Your task to perform on an android device: Do I have any events tomorrow? Image 0: 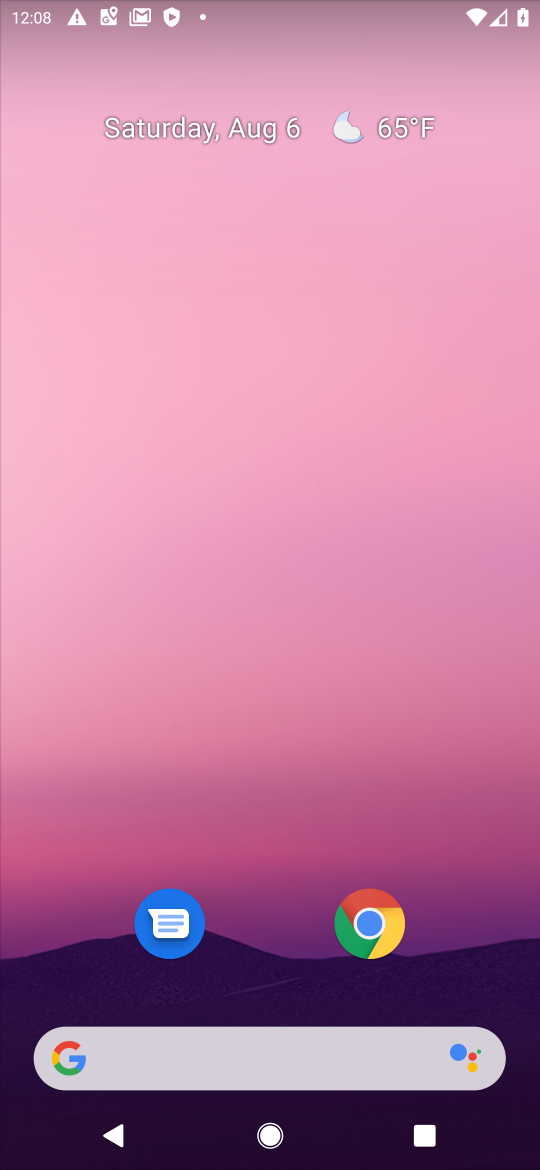
Step 0: drag from (390, 1051) to (387, 59)
Your task to perform on an android device: Do I have any events tomorrow? Image 1: 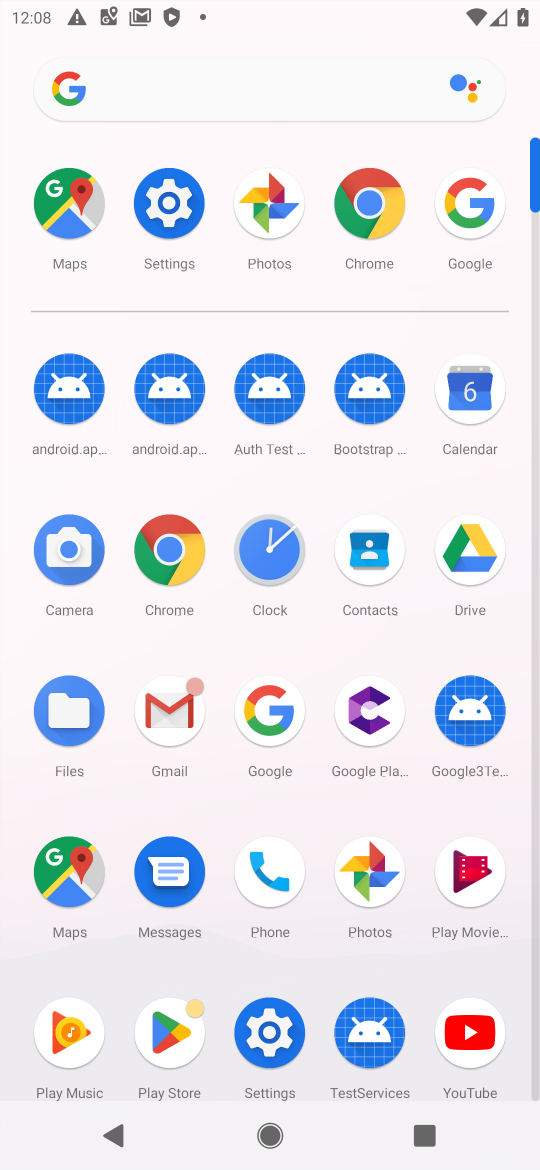
Step 1: click (468, 378)
Your task to perform on an android device: Do I have any events tomorrow? Image 2: 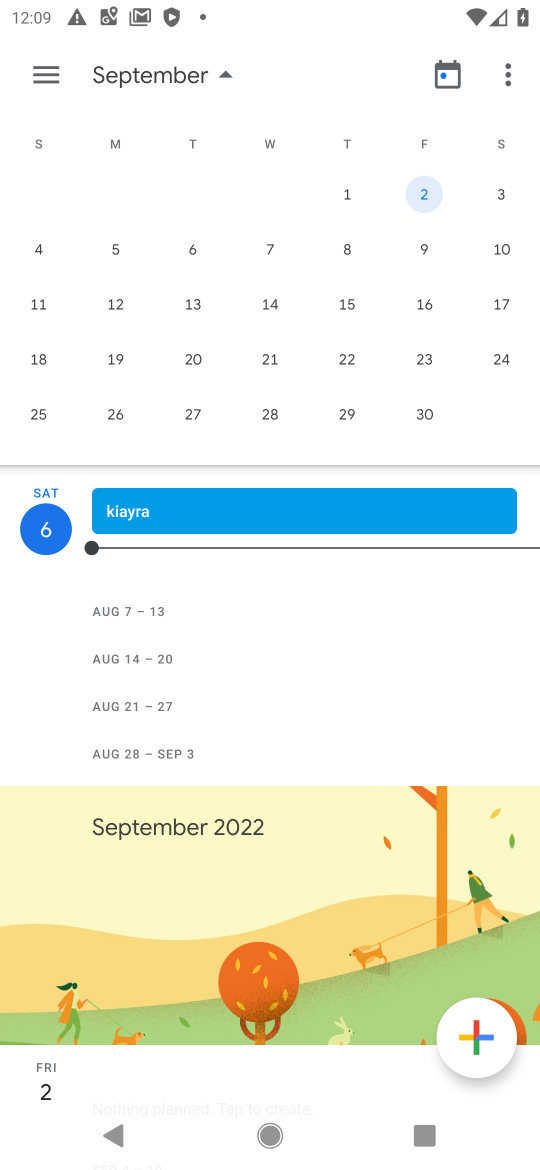
Step 2: click (470, 205)
Your task to perform on an android device: Do I have any events tomorrow? Image 3: 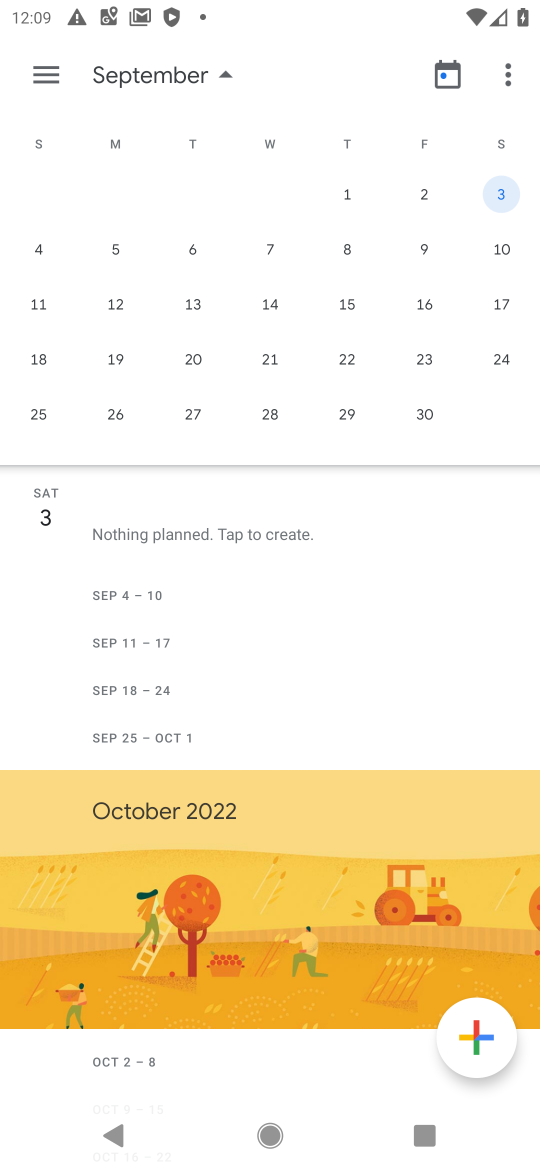
Step 3: task complete